Your task to perform on an android device: toggle notifications settings in the gmail app Image 0: 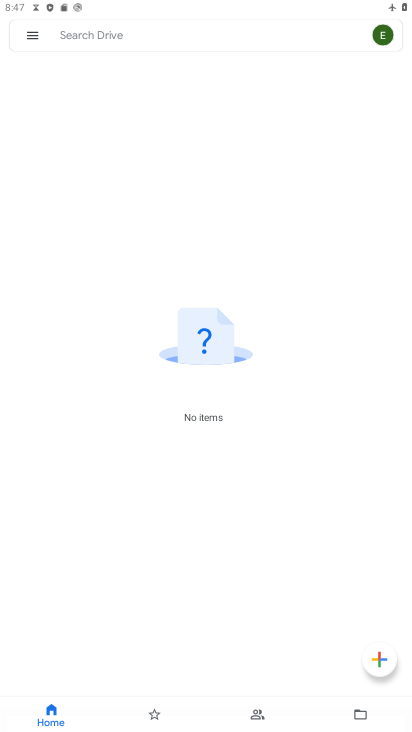
Step 0: press back button
Your task to perform on an android device: toggle notifications settings in the gmail app Image 1: 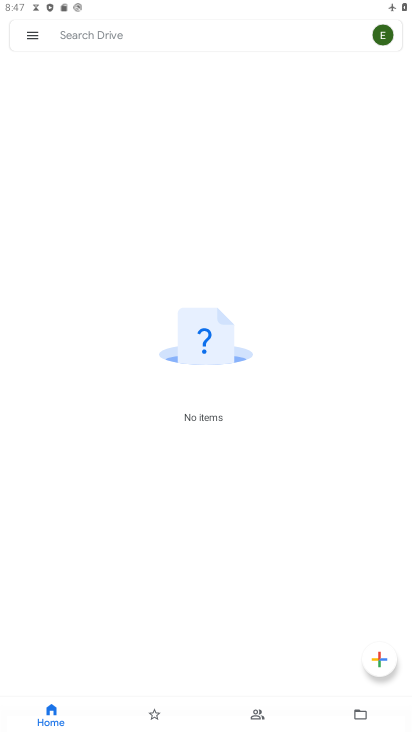
Step 1: press back button
Your task to perform on an android device: toggle notifications settings in the gmail app Image 2: 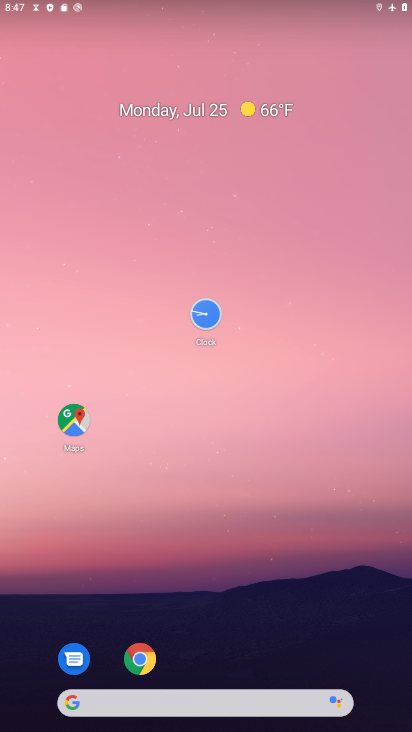
Step 2: press back button
Your task to perform on an android device: toggle notifications settings in the gmail app Image 3: 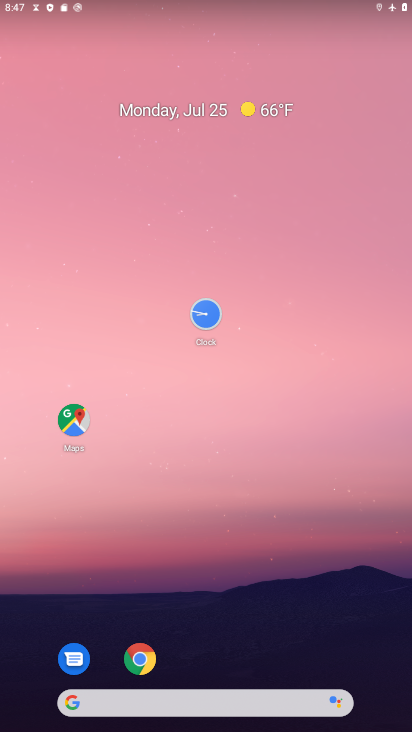
Step 3: drag from (175, 236) to (161, 52)
Your task to perform on an android device: toggle notifications settings in the gmail app Image 4: 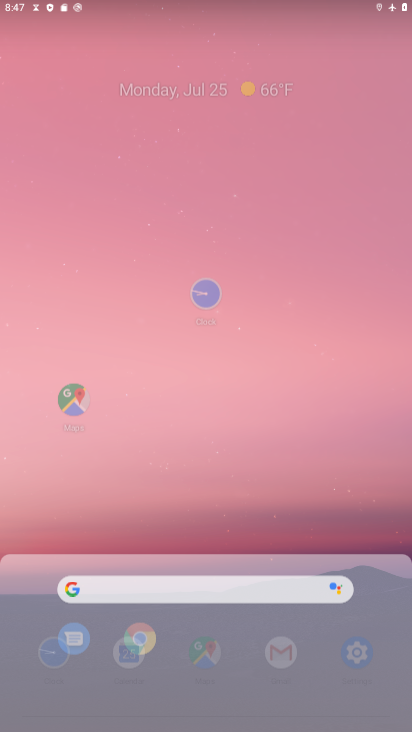
Step 4: drag from (211, 398) to (244, 64)
Your task to perform on an android device: toggle notifications settings in the gmail app Image 5: 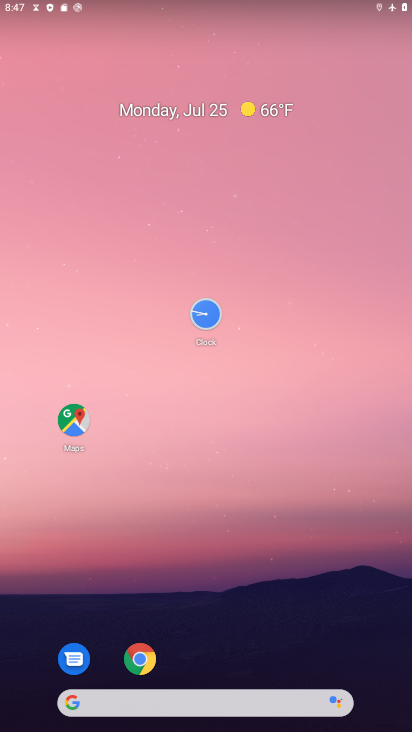
Step 5: drag from (235, 565) to (199, 39)
Your task to perform on an android device: toggle notifications settings in the gmail app Image 6: 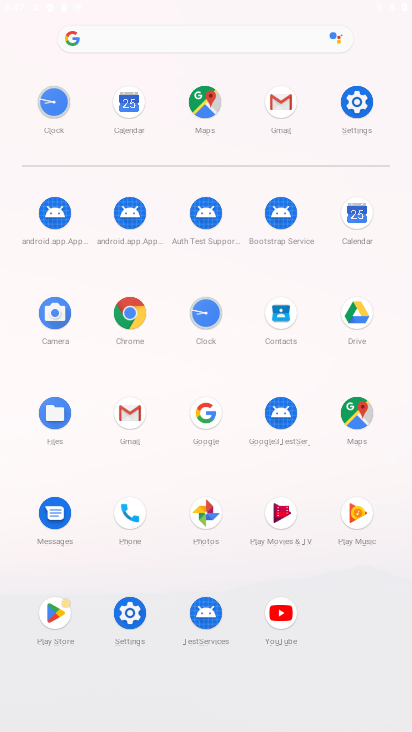
Step 6: drag from (233, 272) to (253, 90)
Your task to perform on an android device: toggle notifications settings in the gmail app Image 7: 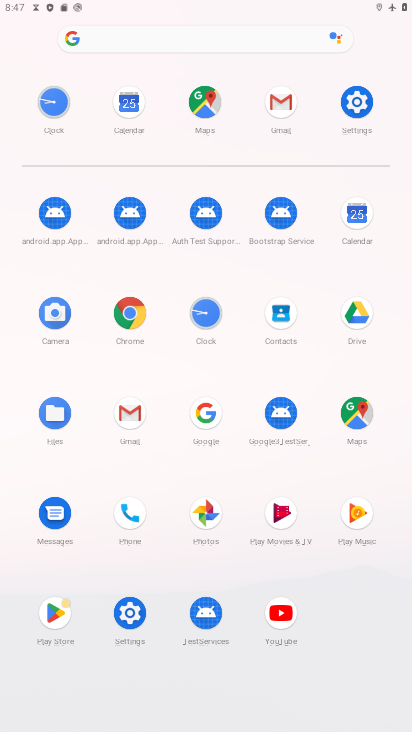
Step 7: click (132, 607)
Your task to perform on an android device: toggle notifications settings in the gmail app Image 8: 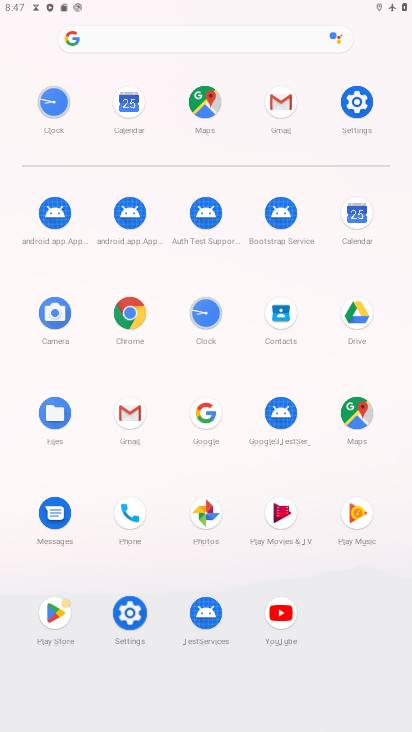
Step 8: click (131, 608)
Your task to perform on an android device: toggle notifications settings in the gmail app Image 9: 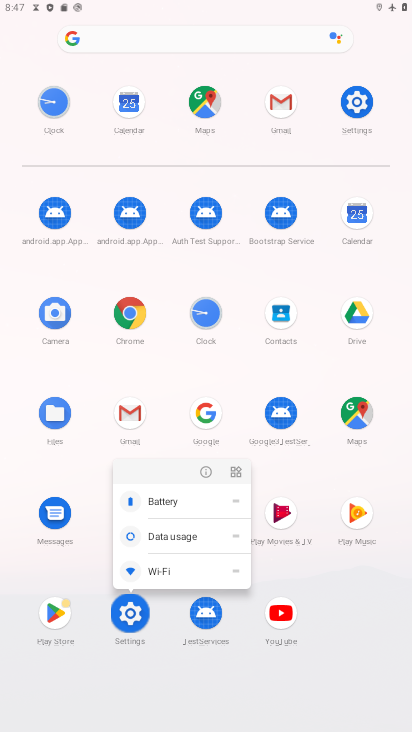
Step 9: click (137, 611)
Your task to perform on an android device: toggle notifications settings in the gmail app Image 10: 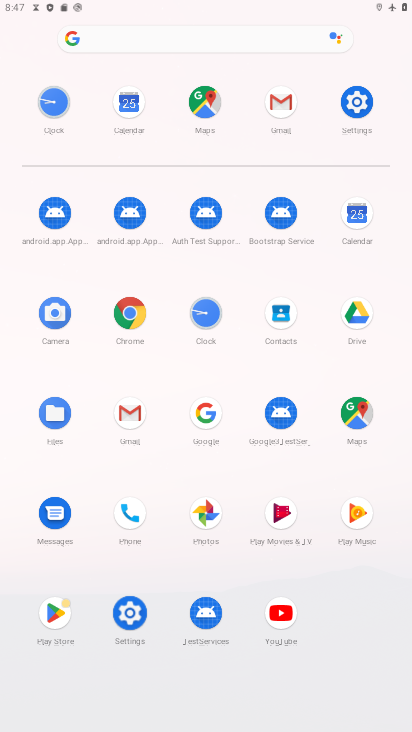
Step 10: click (139, 611)
Your task to perform on an android device: toggle notifications settings in the gmail app Image 11: 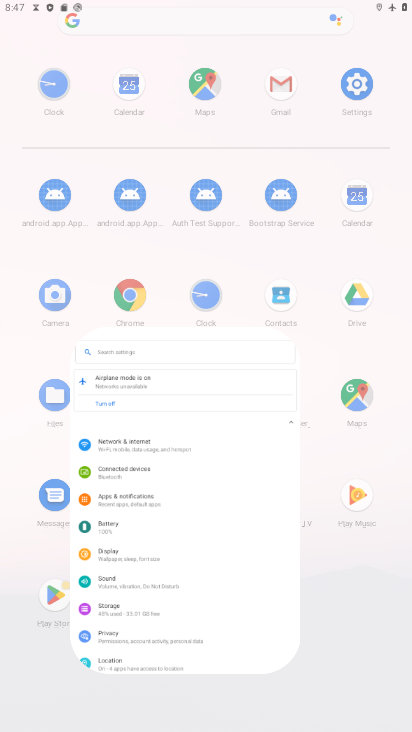
Step 11: click (139, 611)
Your task to perform on an android device: toggle notifications settings in the gmail app Image 12: 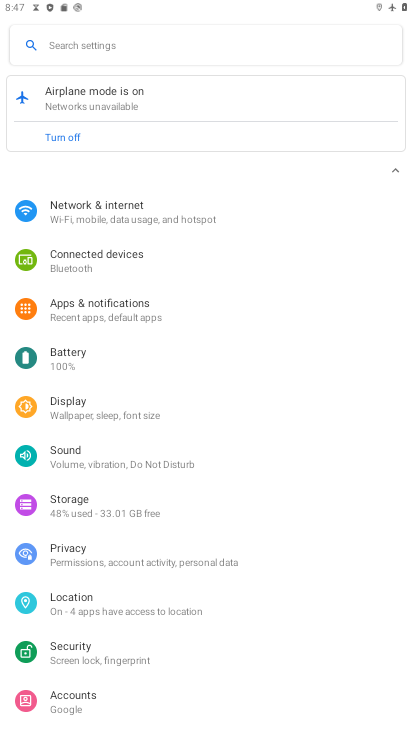
Step 12: click (99, 308)
Your task to perform on an android device: toggle notifications settings in the gmail app Image 13: 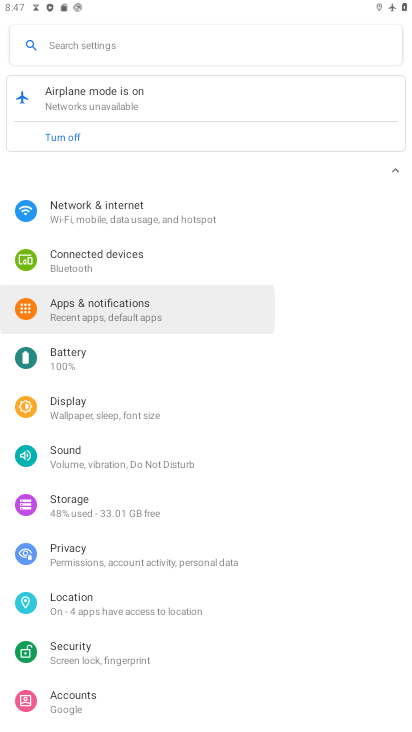
Step 13: click (97, 306)
Your task to perform on an android device: toggle notifications settings in the gmail app Image 14: 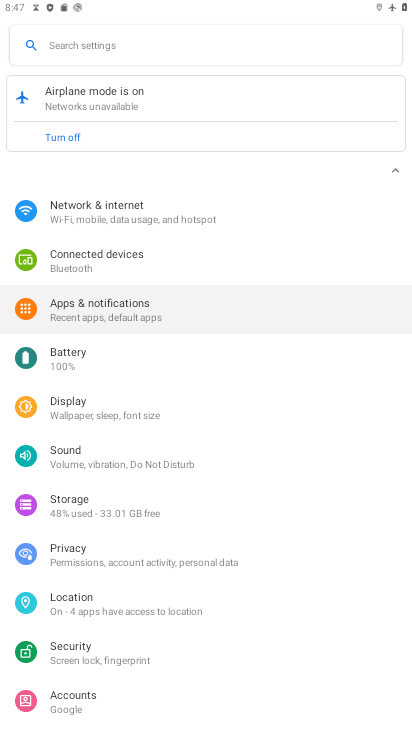
Step 14: click (97, 307)
Your task to perform on an android device: toggle notifications settings in the gmail app Image 15: 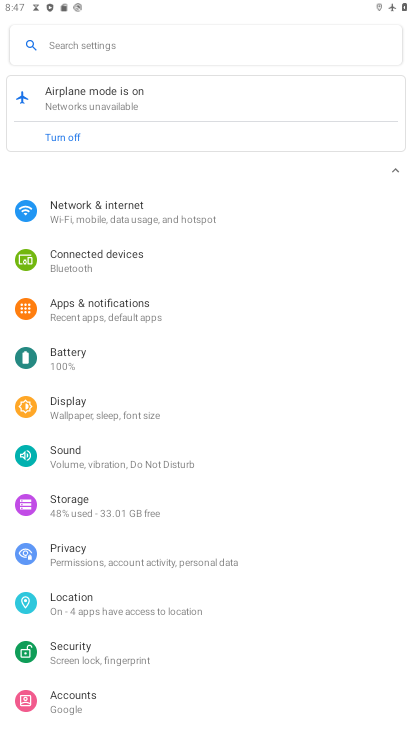
Step 15: click (98, 308)
Your task to perform on an android device: toggle notifications settings in the gmail app Image 16: 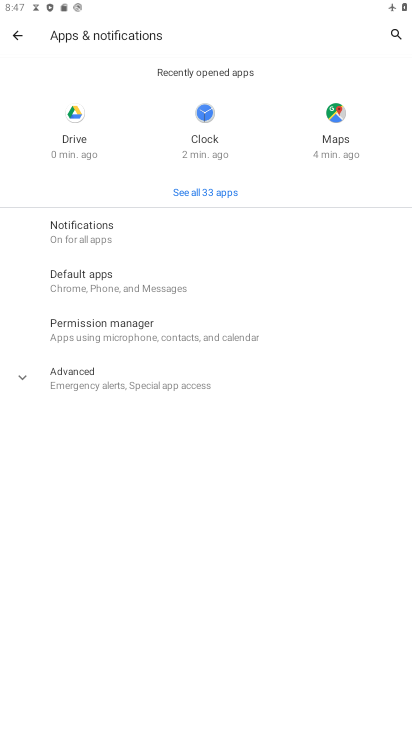
Step 16: click (80, 233)
Your task to perform on an android device: toggle notifications settings in the gmail app Image 17: 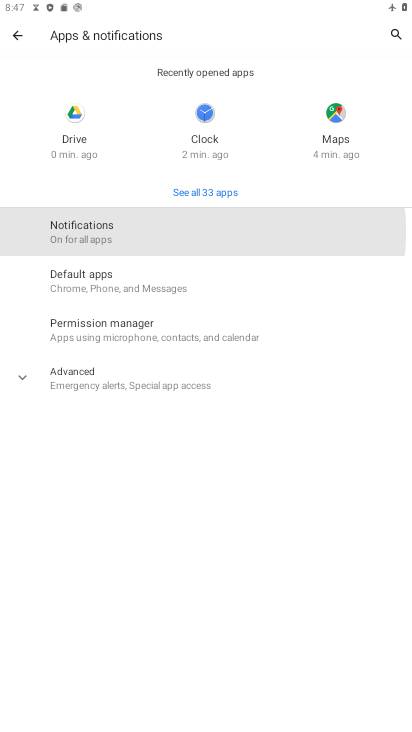
Step 17: click (81, 232)
Your task to perform on an android device: toggle notifications settings in the gmail app Image 18: 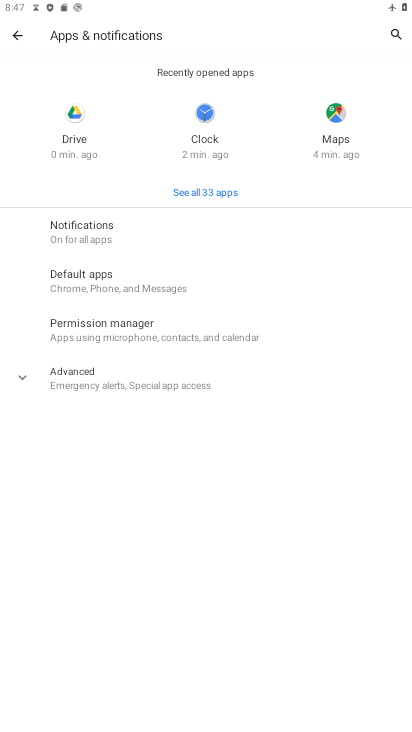
Step 18: click (84, 237)
Your task to perform on an android device: toggle notifications settings in the gmail app Image 19: 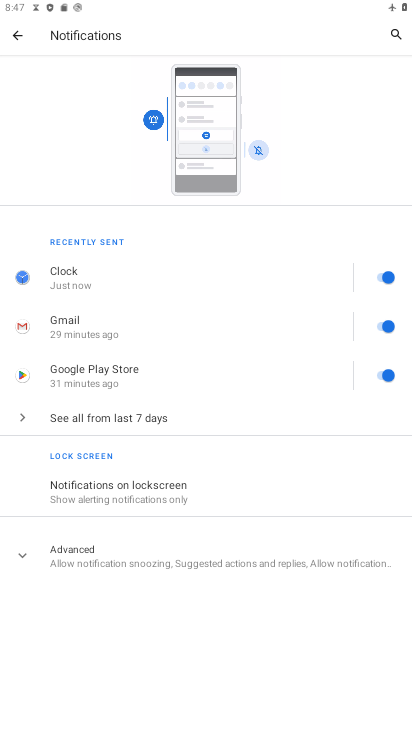
Step 19: click (391, 278)
Your task to perform on an android device: toggle notifications settings in the gmail app Image 20: 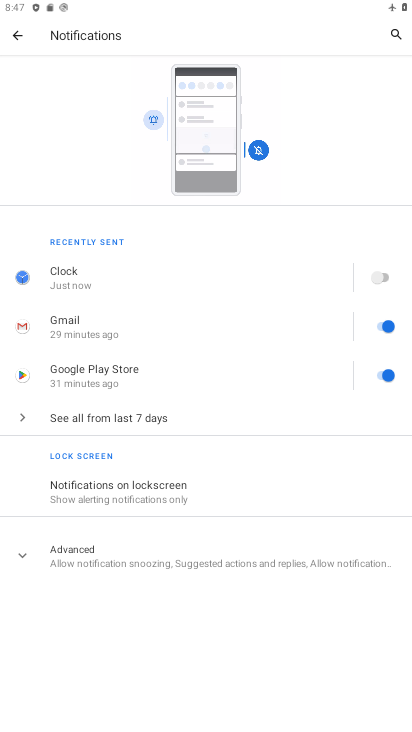
Step 20: click (392, 320)
Your task to perform on an android device: toggle notifications settings in the gmail app Image 21: 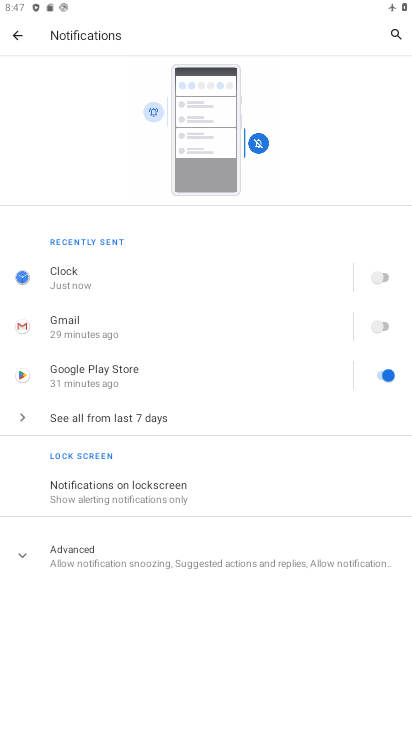
Step 21: click (388, 381)
Your task to perform on an android device: toggle notifications settings in the gmail app Image 22: 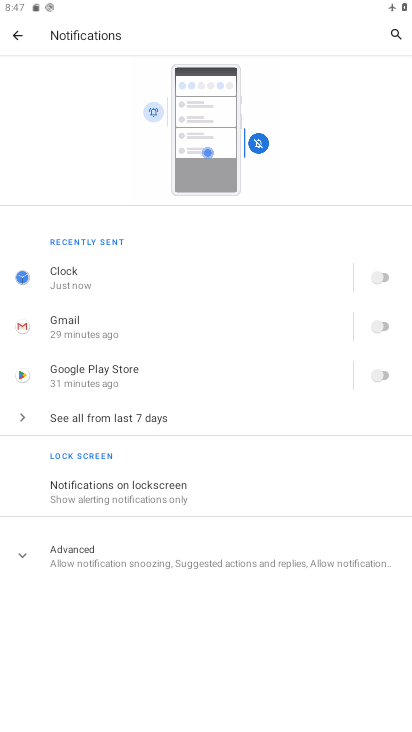
Step 22: task complete